Your task to perform on an android device: uninstall "Roku - Official Remote Control" Image 0: 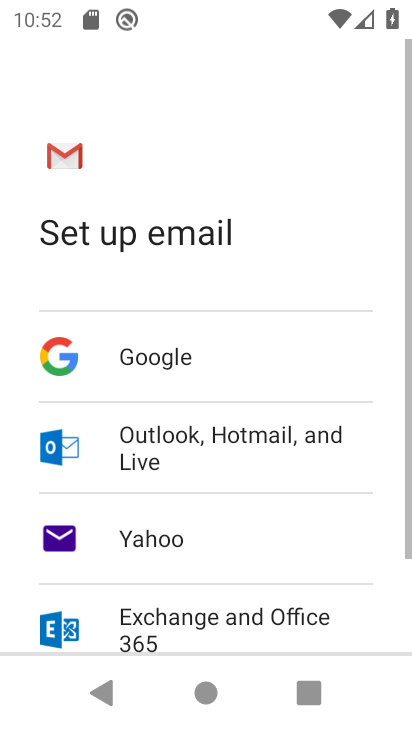
Step 0: press home button
Your task to perform on an android device: uninstall "Roku - Official Remote Control" Image 1: 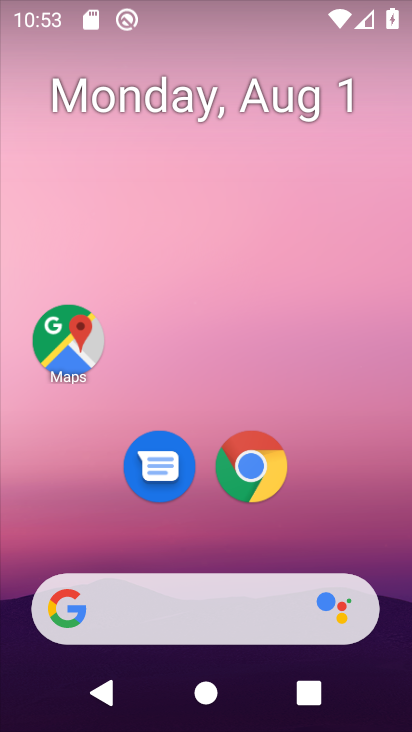
Step 1: drag from (235, 706) to (230, 55)
Your task to perform on an android device: uninstall "Roku - Official Remote Control" Image 2: 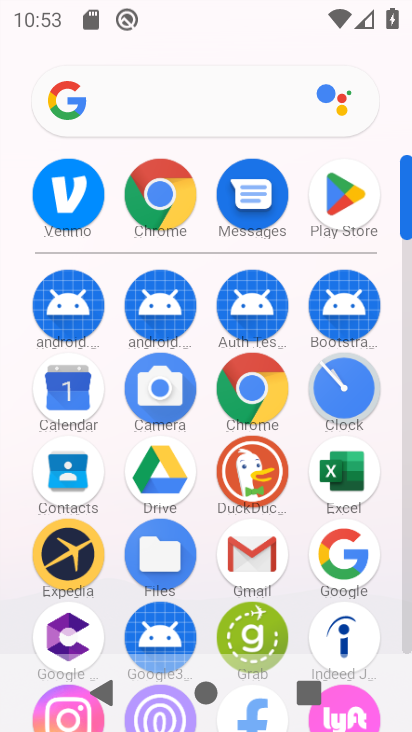
Step 2: click (347, 203)
Your task to perform on an android device: uninstall "Roku - Official Remote Control" Image 3: 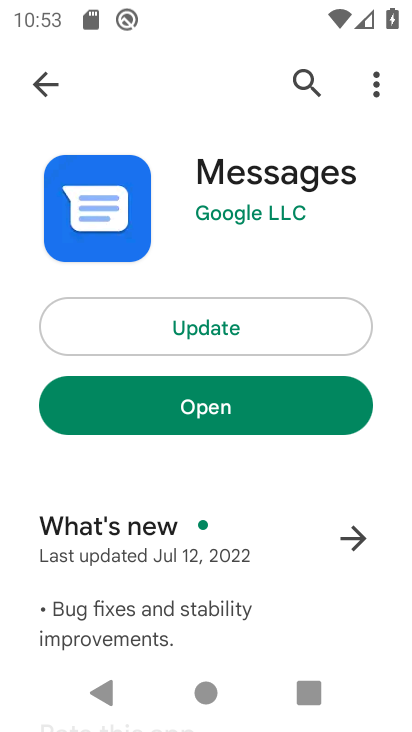
Step 3: click (304, 83)
Your task to perform on an android device: uninstall "Roku - Official Remote Control" Image 4: 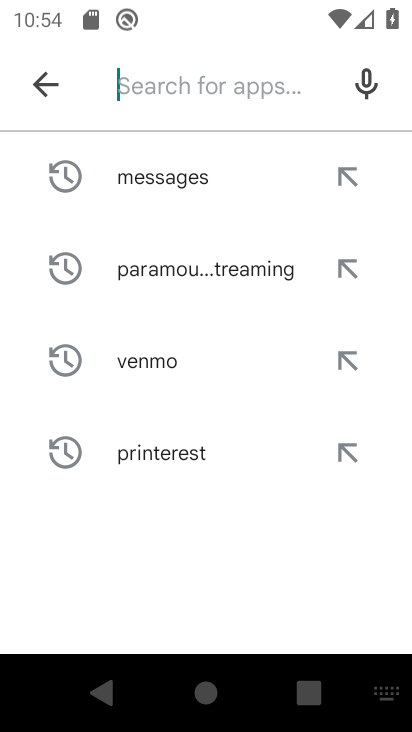
Step 4: type "Roku - Official Remote Control"
Your task to perform on an android device: uninstall "Roku - Official Remote Control" Image 5: 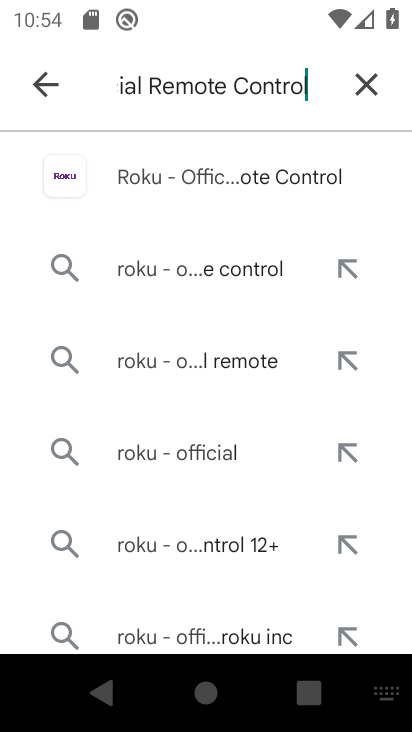
Step 5: type ""
Your task to perform on an android device: uninstall "Roku - Official Remote Control" Image 6: 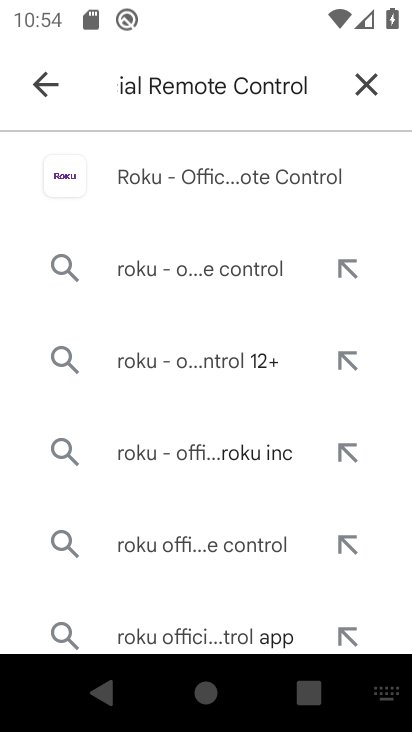
Step 6: click (260, 180)
Your task to perform on an android device: uninstall "Roku - Official Remote Control" Image 7: 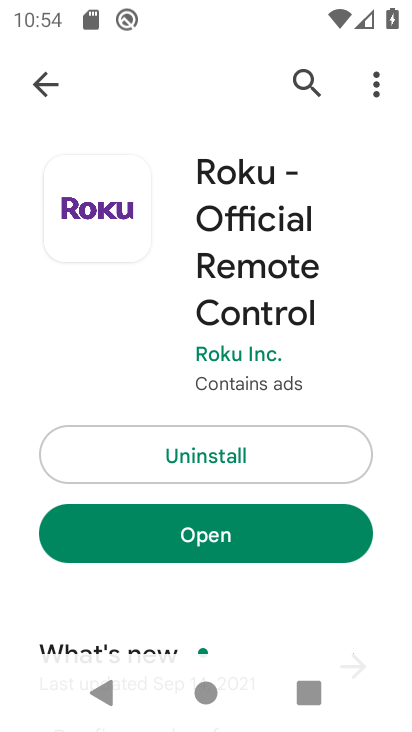
Step 7: click (192, 459)
Your task to perform on an android device: uninstall "Roku - Official Remote Control" Image 8: 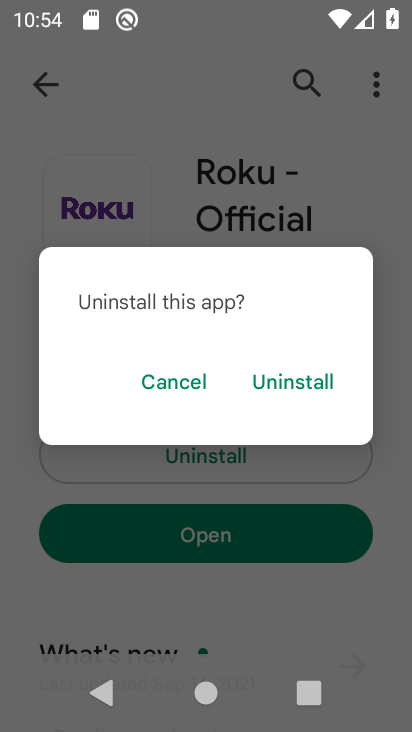
Step 8: click (321, 379)
Your task to perform on an android device: uninstall "Roku - Official Remote Control" Image 9: 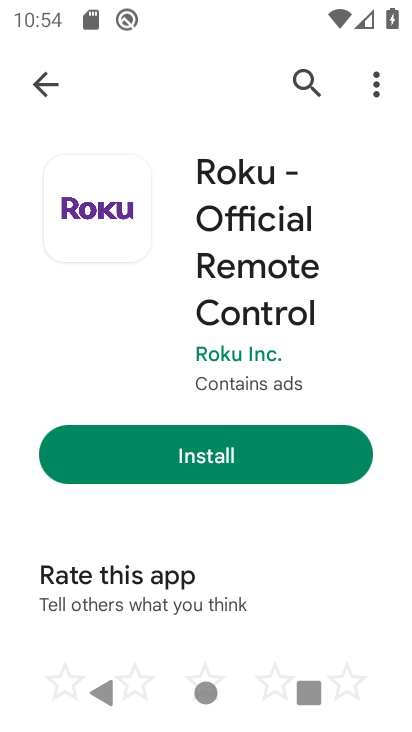
Step 9: task complete